Your task to perform on an android device: Open Android settings Image 0: 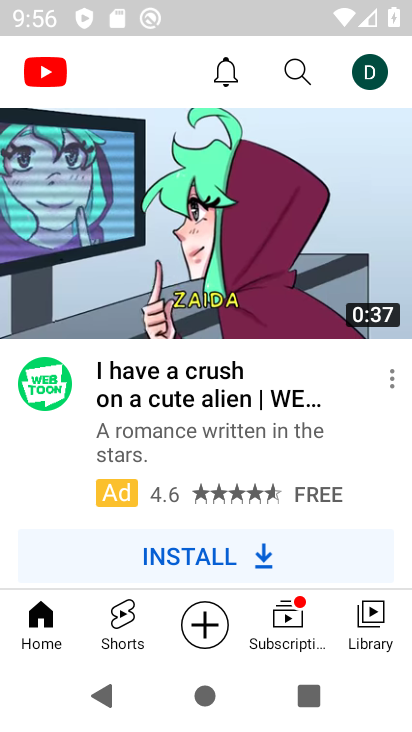
Step 0: press back button
Your task to perform on an android device: Open Android settings Image 1: 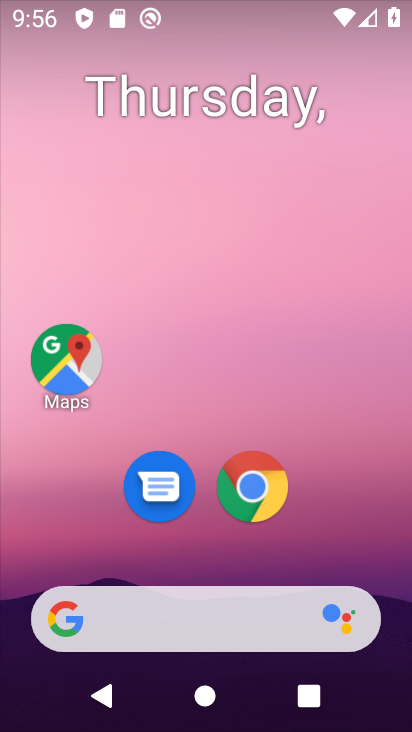
Step 1: drag from (237, 537) to (300, 54)
Your task to perform on an android device: Open Android settings Image 2: 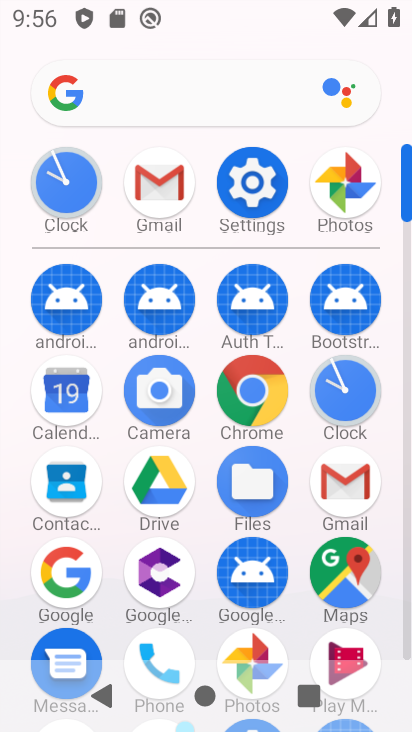
Step 2: click (259, 193)
Your task to perform on an android device: Open Android settings Image 3: 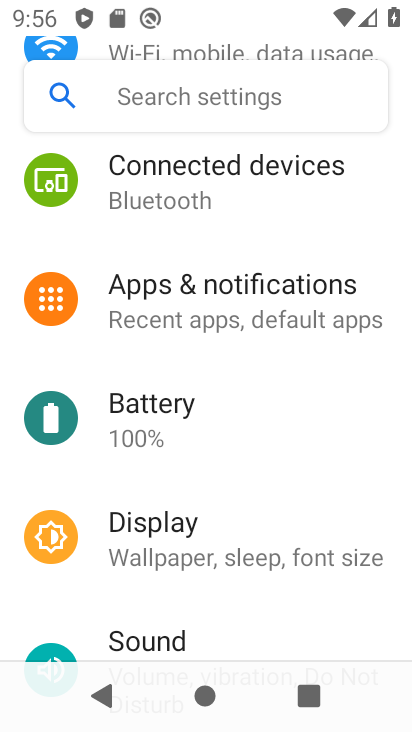
Step 3: drag from (211, 560) to (289, 76)
Your task to perform on an android device: Open Android settings Image 4: 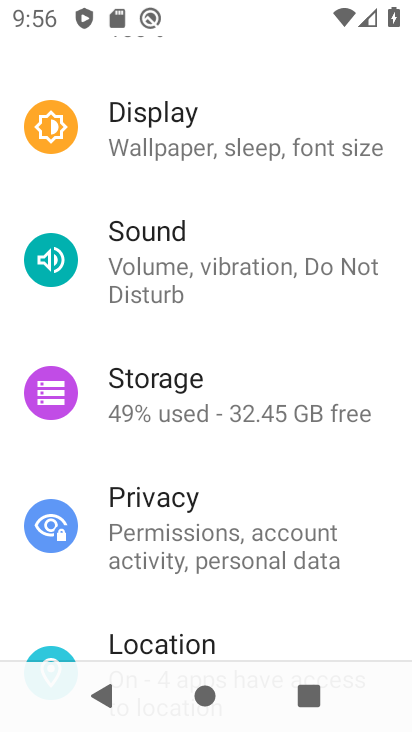
Step 4: drag from (160, 564) to (250, 137)
Your task to perform on an android device: Open Android settings Image 5: 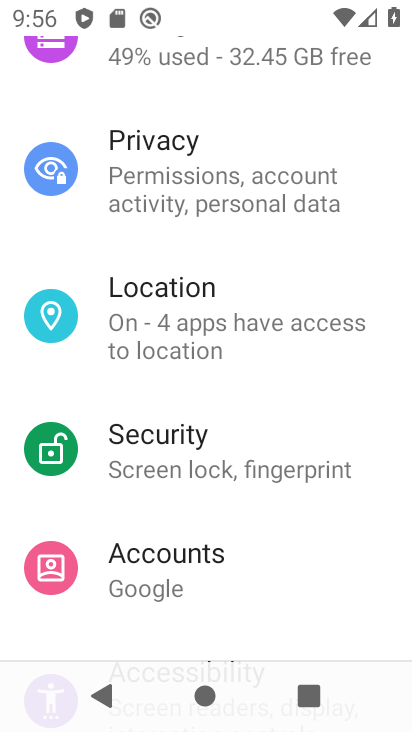
Step 5: drag from (245, 560) to (336, 89)
Your task to perform on an android device: Open Android settings Image 6: 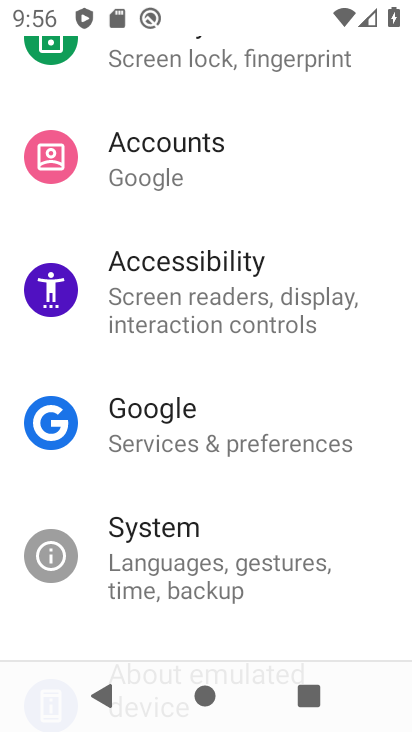
Step 6: drag from (225, 526) to (259, 83)
Your task to perform on an android device: Open Android settings Image 7: 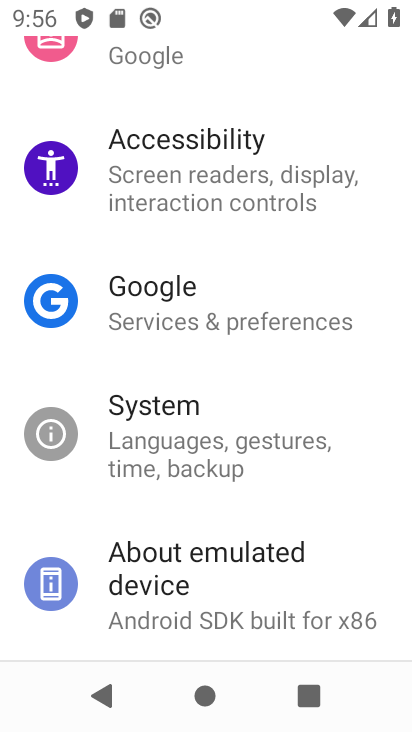
Step 7: drag from (196, 543) to (253, 130)
Your task to perform on an android device: Open Android settings Image 8: 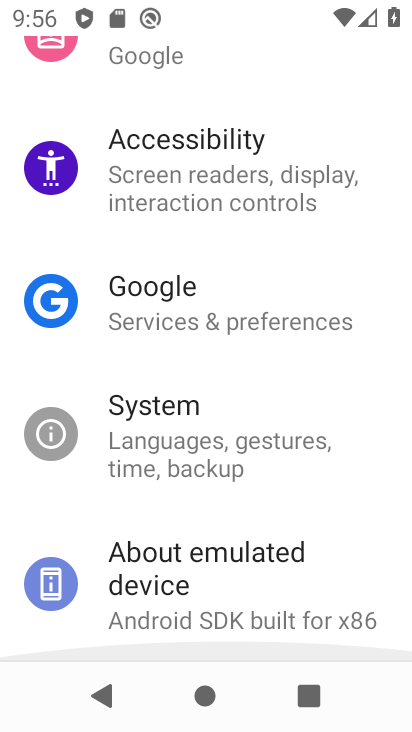
Step 8: click (176, 579)
Your task to perform on an android device: Open Android settings Image 9: 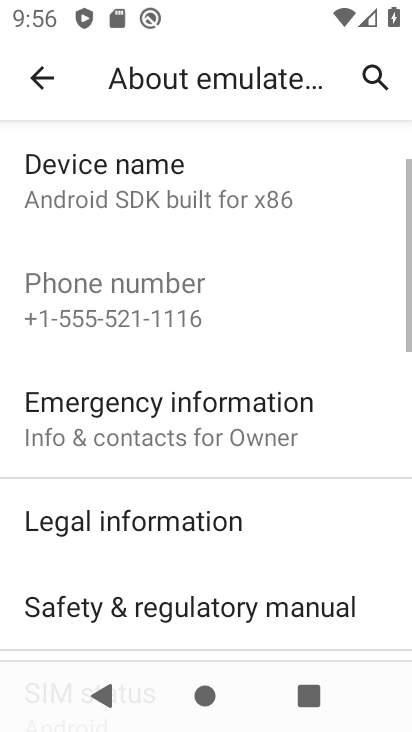
Step 9: drag from (158, 560) to (212, 211)
Your task to perform on an android device: Open Android settings Image 10: 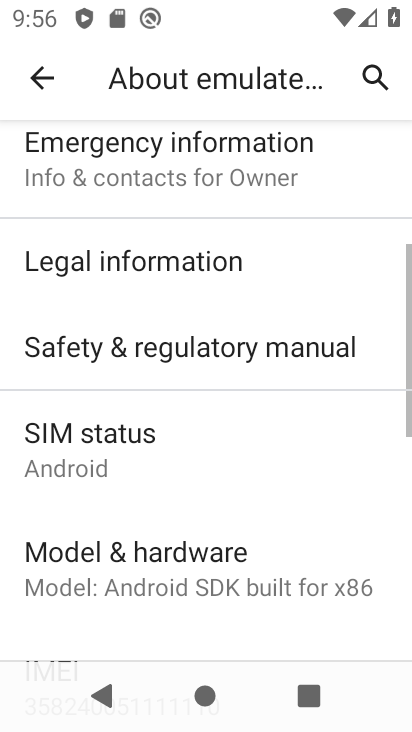
Step 10: drag from (101, 594) to (234, 161)
Your task to perform on an android device: Open Android settings Image 11: 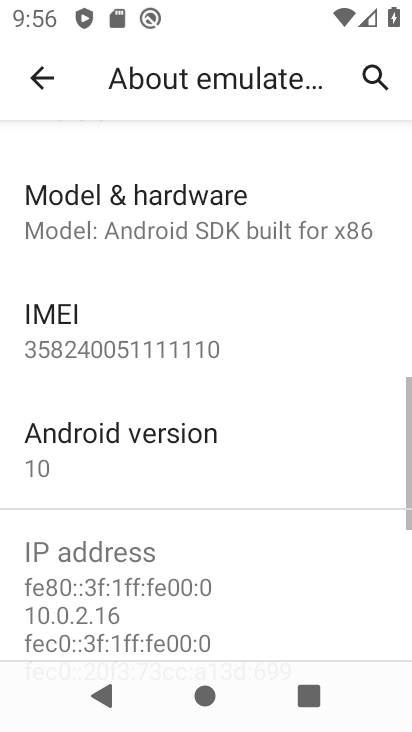
Step 11: click (125, 423)
Your task to perform on an android device: Open Android settings Image 12: 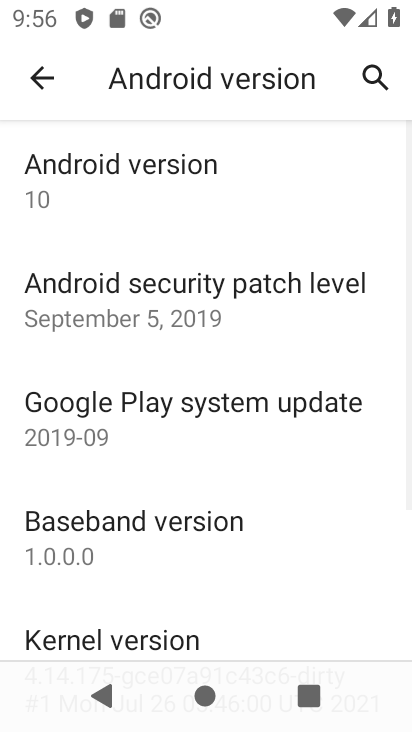
Step 12: task complete